Your task to perform on an android device: check google app version Image 0: 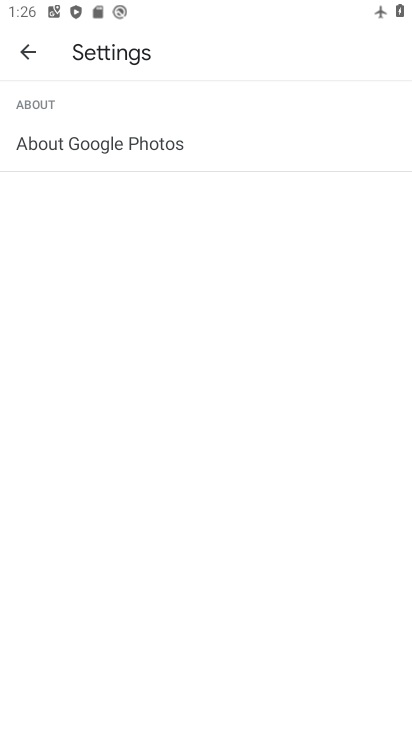
Step 0: press home button
Your task to perform on an android device: check google app version Image 1: 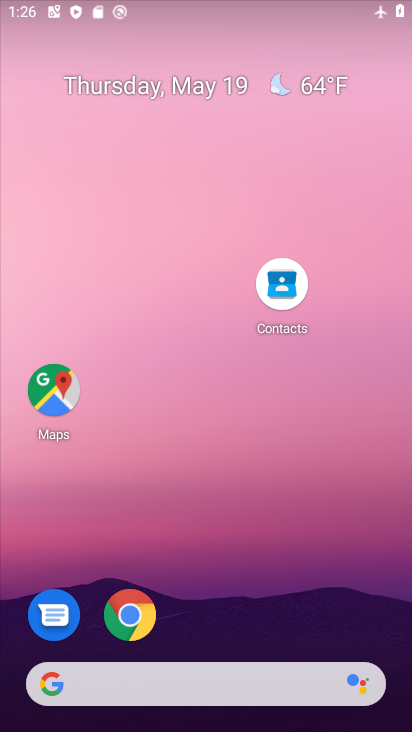
Step 1: drag from (255, 580) to (305, 135)
Your task to perform on an android device: check google app version Image 2: 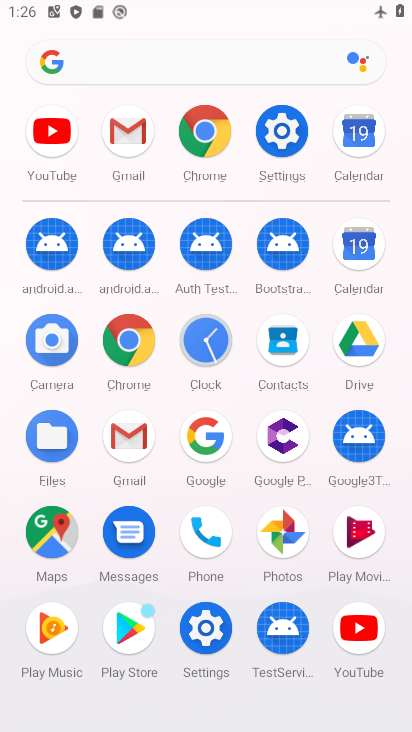
Step 2: drag from (205, 452) to (199, 263)
Your task to perform on an android device: check google app version Image 3: 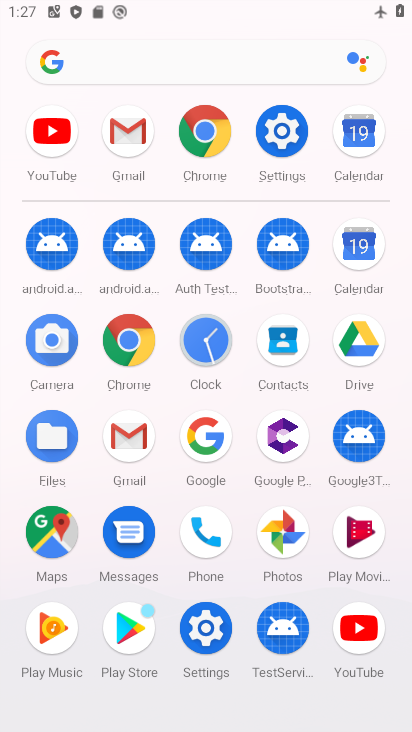
Step 3: click (203, 467)
Your task to perform on an android device: check google app version Image 4: 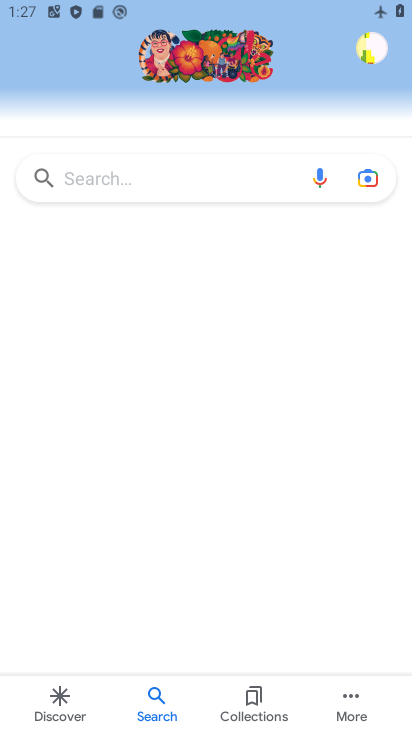
Step 4: click (351, 712)
Your task to perform on an android device: check google app version Image 5: 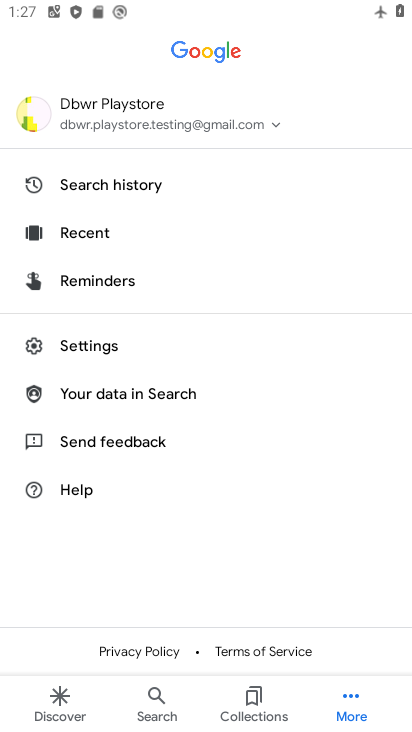
Step 5: click (135, 342)
Your task to perform on an android device: check google app version Image 6: 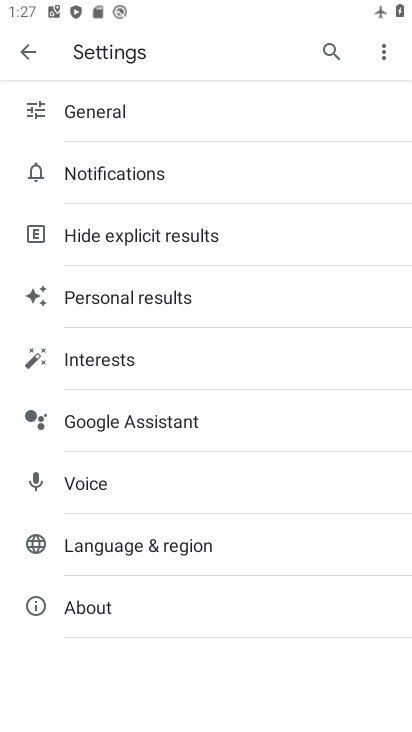
Step 6: click (159, 616)
Your task to perform on an android device: check google app version Image 7: 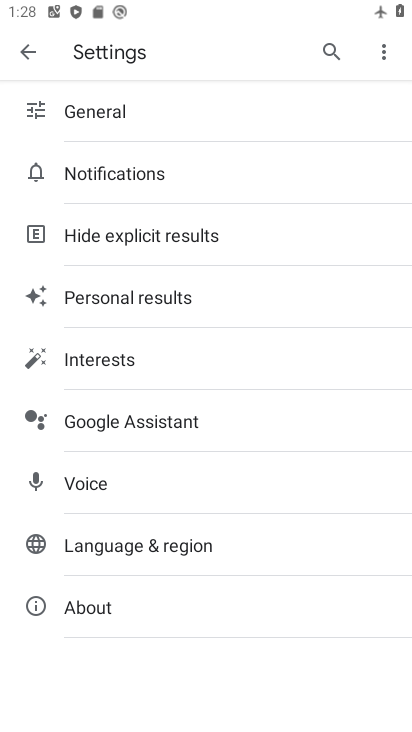
Step 7: click (198, 595)
Your task to perform on an android device: check google app version Image 8: 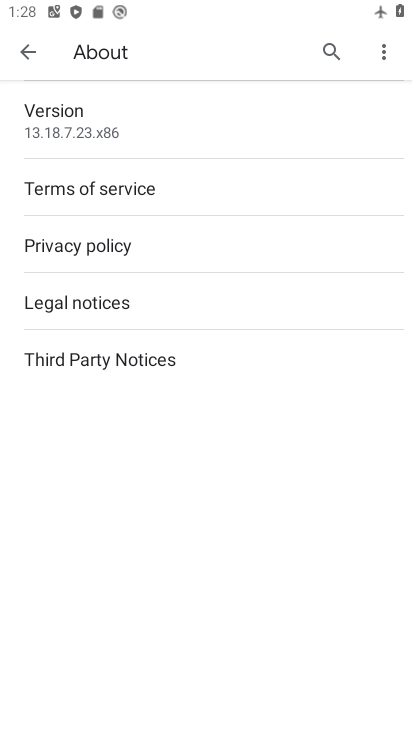
Step 8: task complete